Your task to perform on an android device: Search for vegetarian restaurants on Maps Image 0: 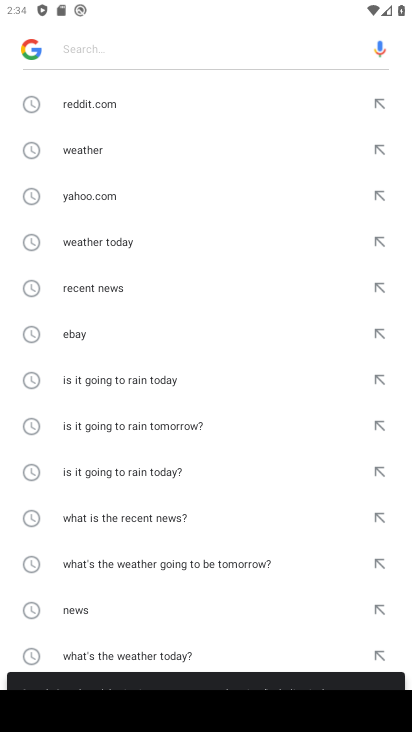
Step 0: press home button
Your task to perform on an android device: Search for vegetarian restaurants on Maps Image 1: 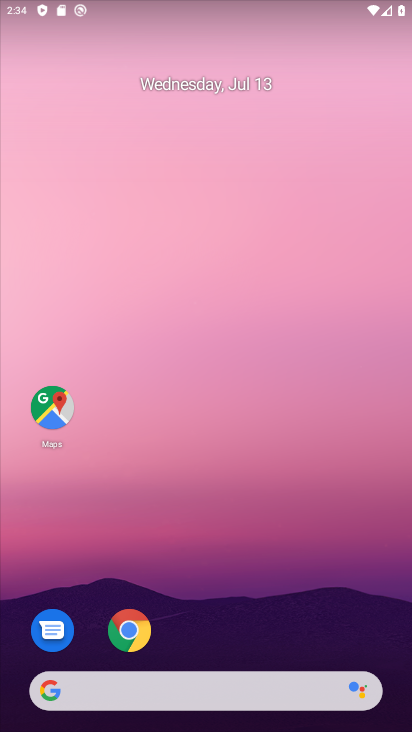
Step 1: drag from (304, 618) to (376, 213)
Your task to perform on an android device: Search for vegetarian restaurants on Maps Image 2: 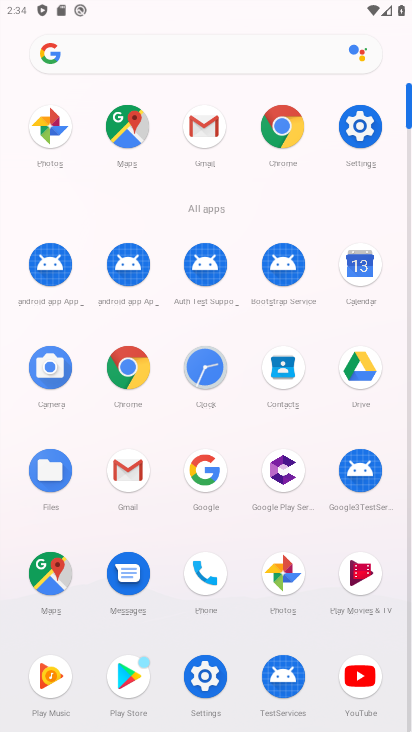
Step 2: click (49, 566)
Your task to perform on an android device: Search for vegetarian restaurants on Maps Image 3: 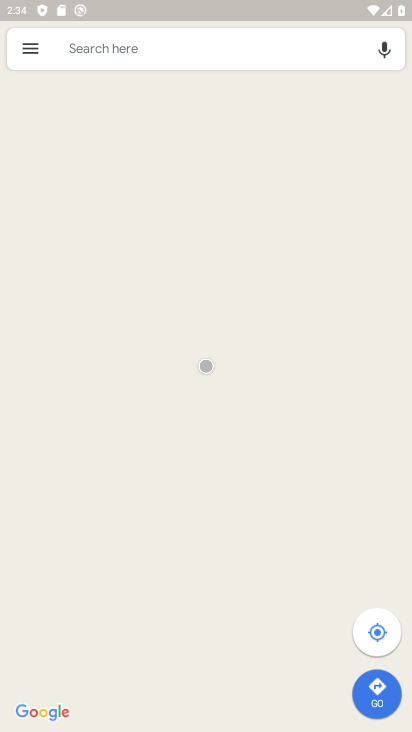
Step 3: click (145, 47)
Your task to perform on an android device: Search for vegetarian restaurants on Maps Image 4: 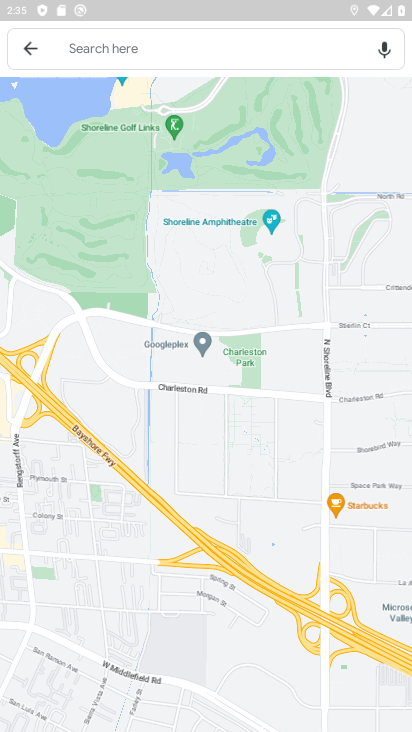
Step 4: click (169, 43)
Your task to perform on an android device: Search for vegetarian restaurants on Maps Image 5: 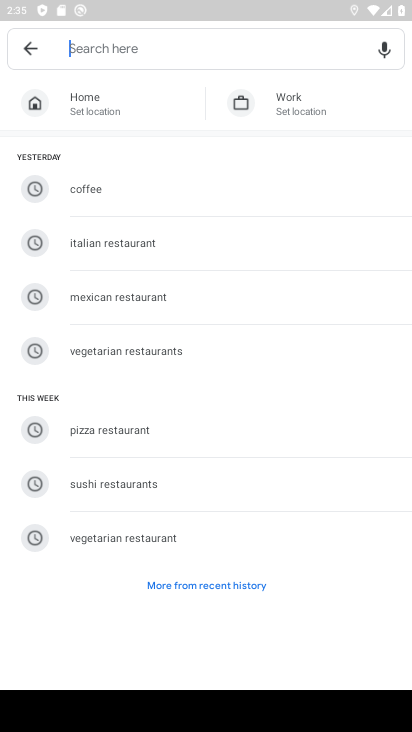
Step 5: type "vegetrain restaurants"
Your task to perform on an android device: Search for vegetarian restaurants on Maps Image 6: 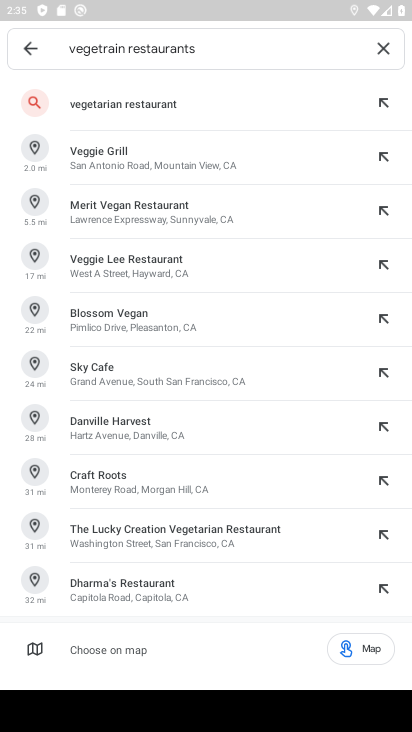
Step 6: click (226, 110)
Your task to perform on an android device: Search for vegetarian restaurants on Maps Image 7: 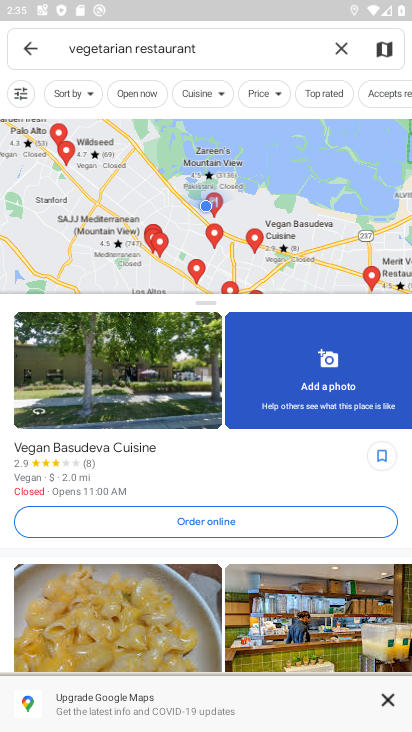
Step 7: task complete